Your task to perform on an android device: open app "TextNow: Call + Text Unlimited" (install if not already installed) and go to login screen Image 0: 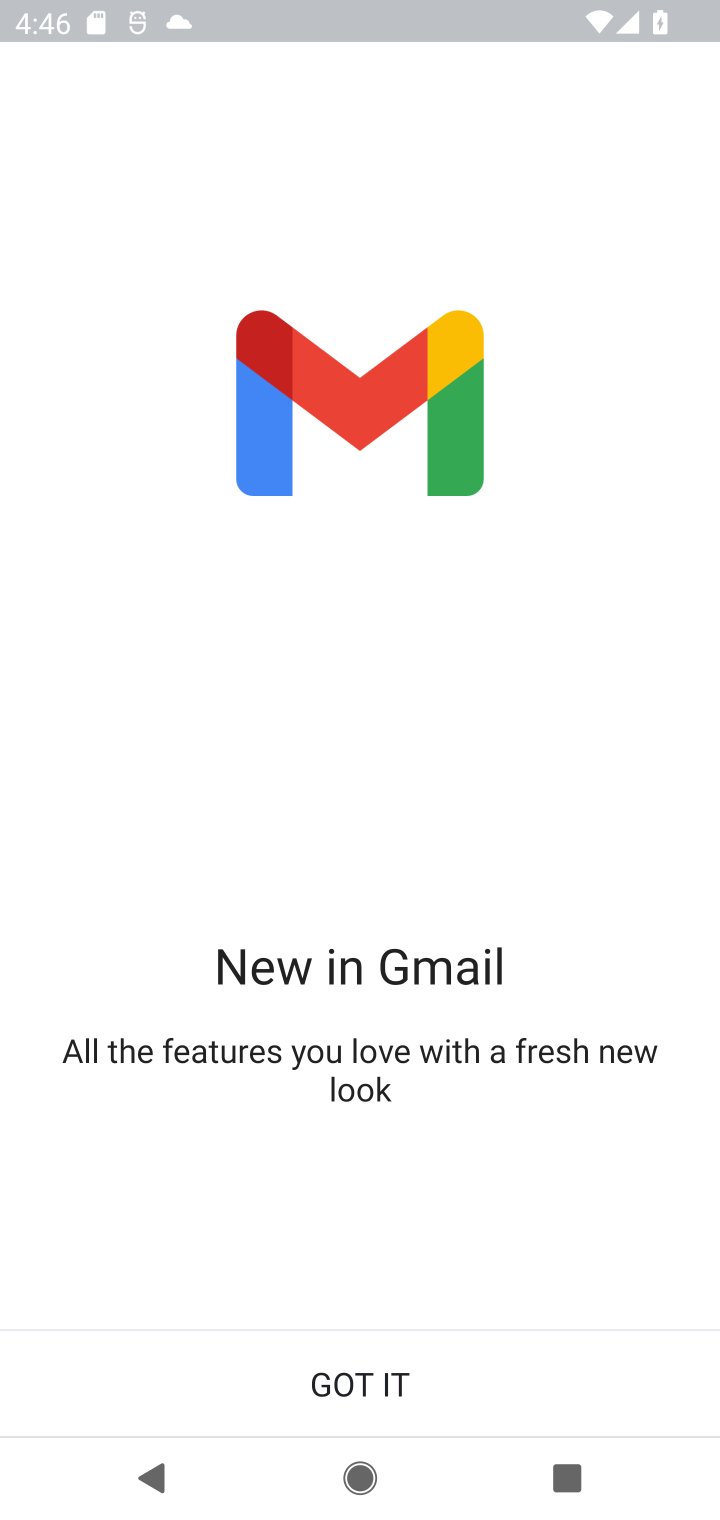
Step 0: press home button
Your task to perform on an android device: open app "TextNow: Call + Text Unlimited" (install if not already installed) and go to login screen Image 1: 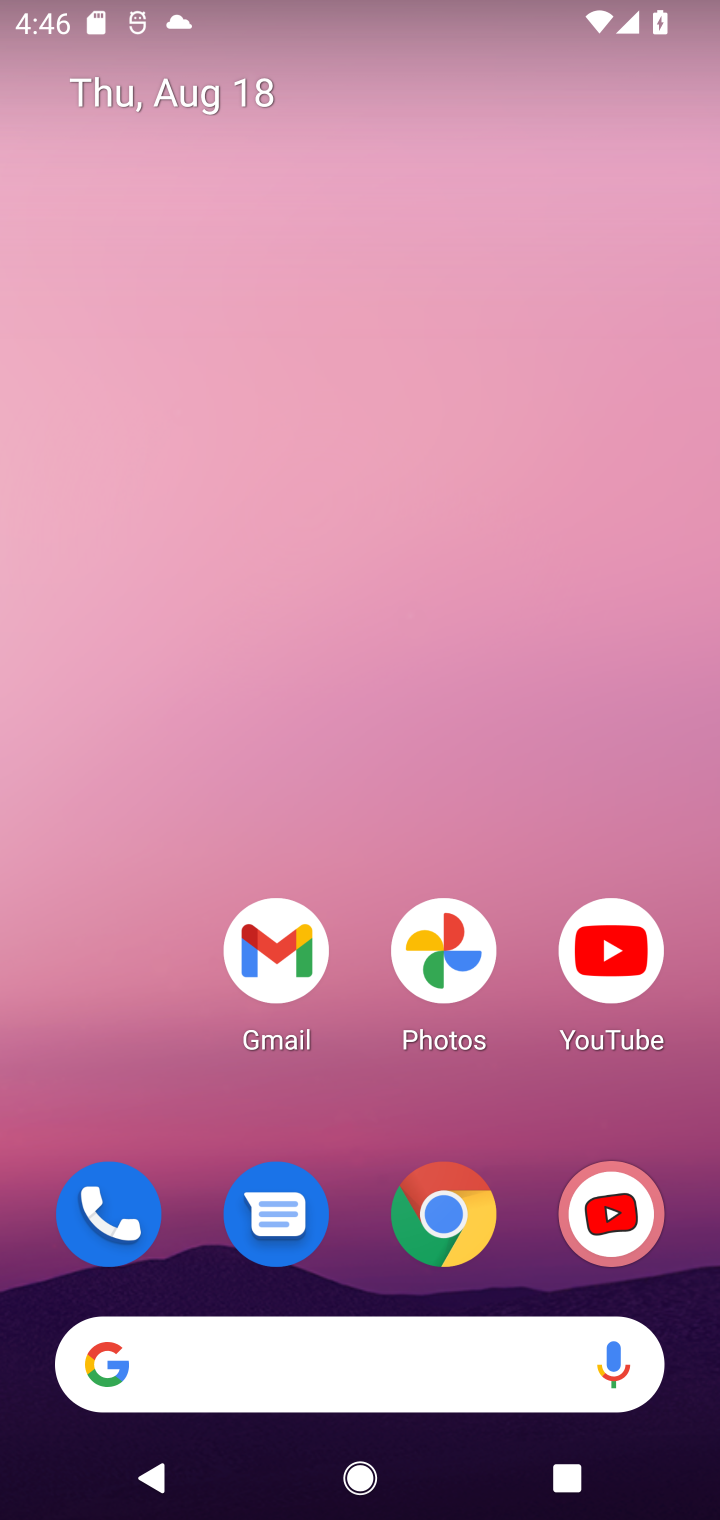
Step 1: drag from (367, 564) to (509, 58)
Your task to perform on an android device: open app "TextNow: Call + Text Unlimited" (install if not already installed) and go to login screen Image 2: 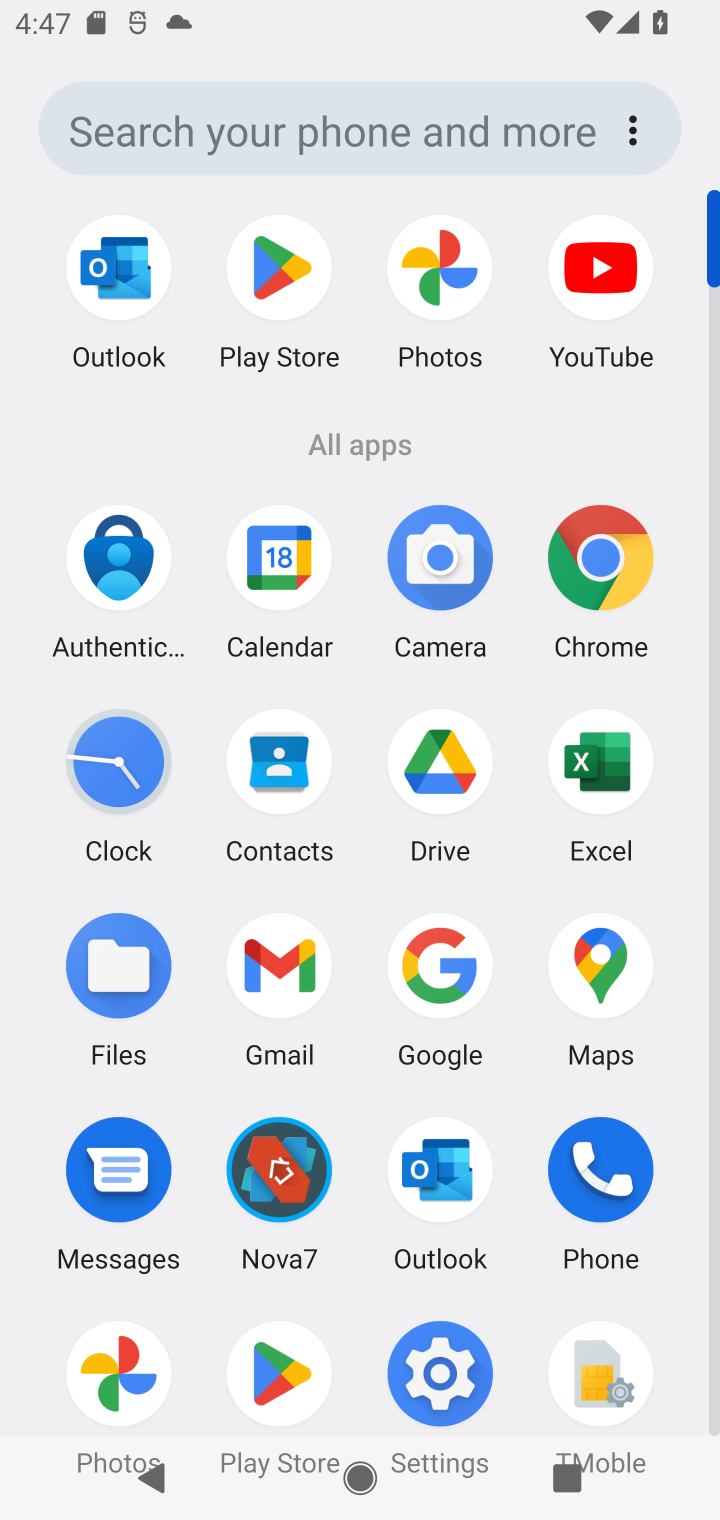
Step 2: click (263, 272)
Your task to perform on an android device: open app "TextNow: Call + Text Unlimited" (install if not already installed) and go to login screen Image 3: 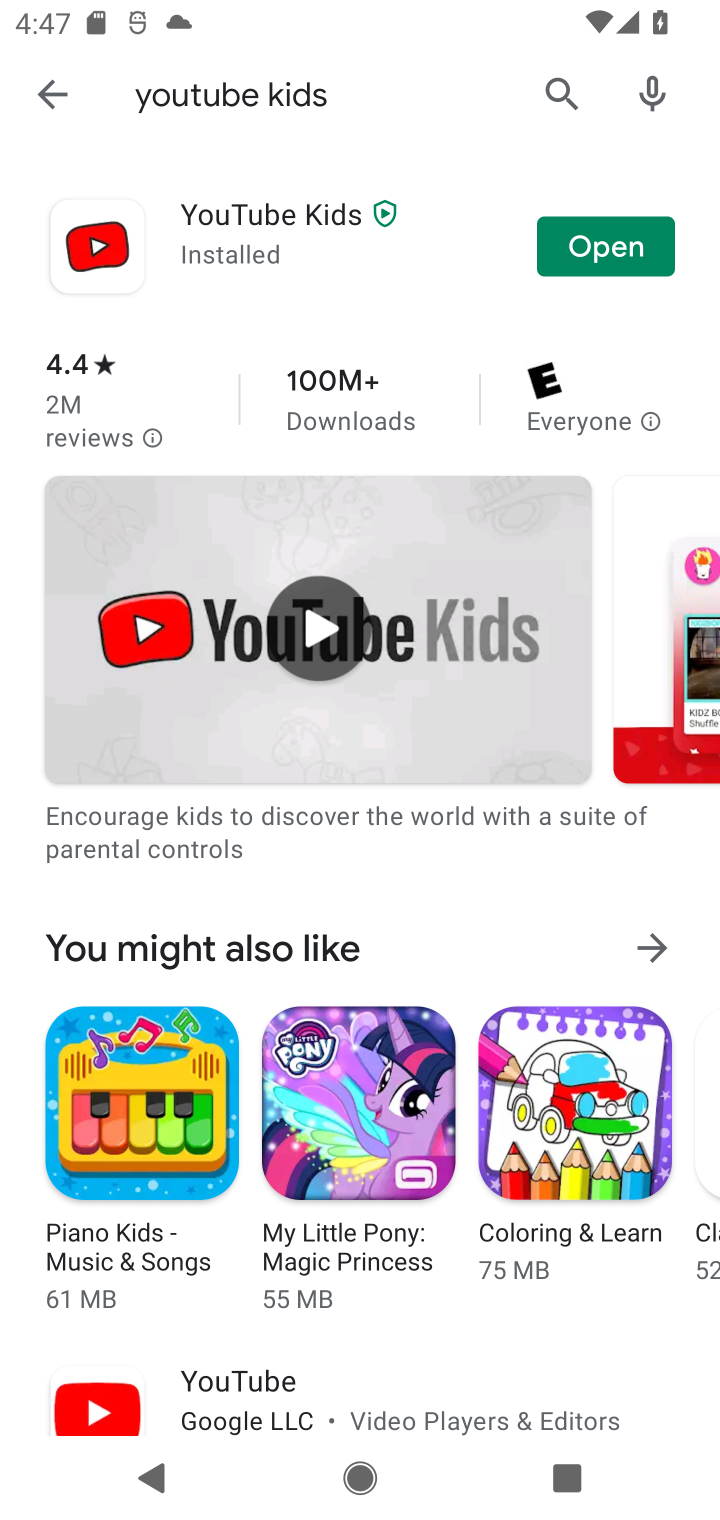
Step 3: click (302, 68)
Your task to perform on an android device: open app "TextNow: Call + Text Unlimited" (install if not already installed) and go to login screen Image 4: 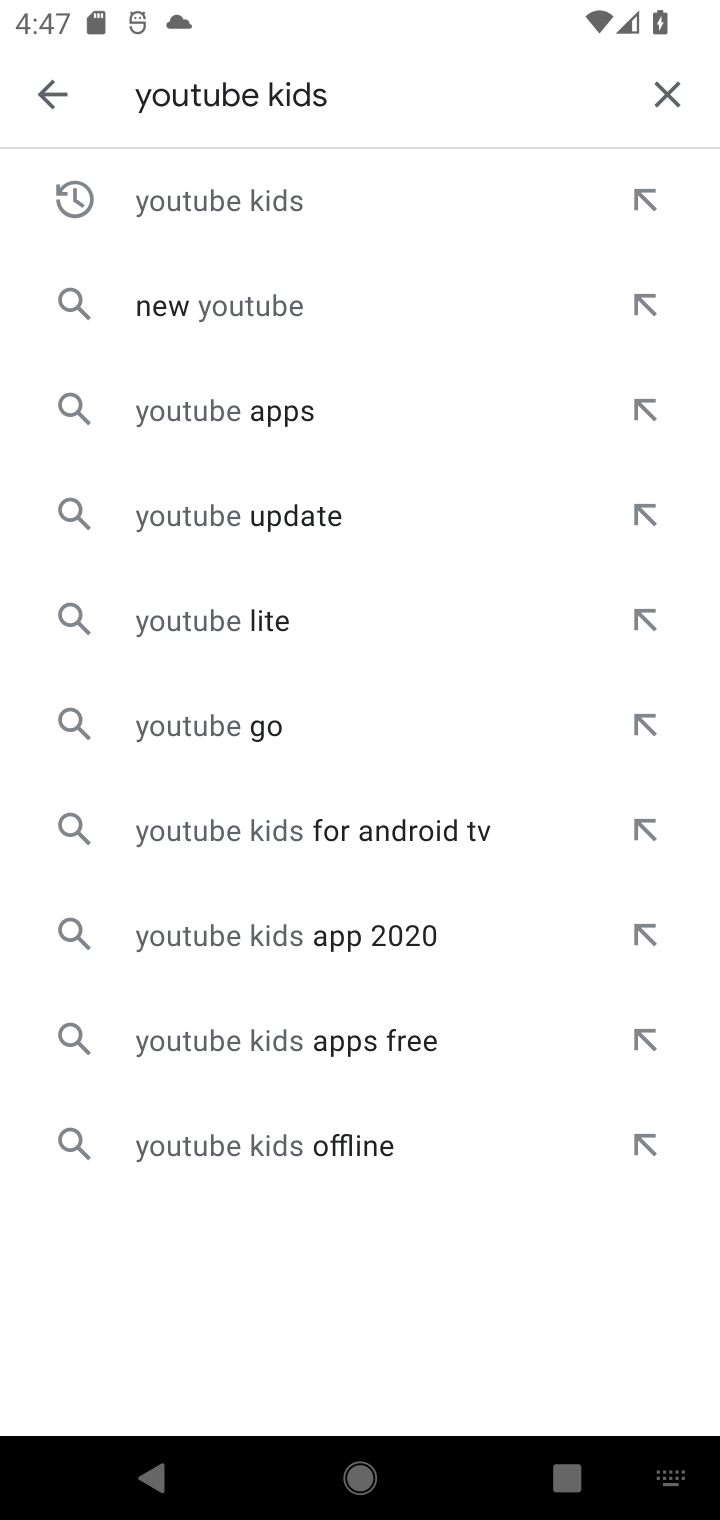
Step 4: click (668, 87)
Your task to perform on an android device: open app "TextNow: Call + Text Unlimited" (install if not already installed) and go to login screen Image 5: 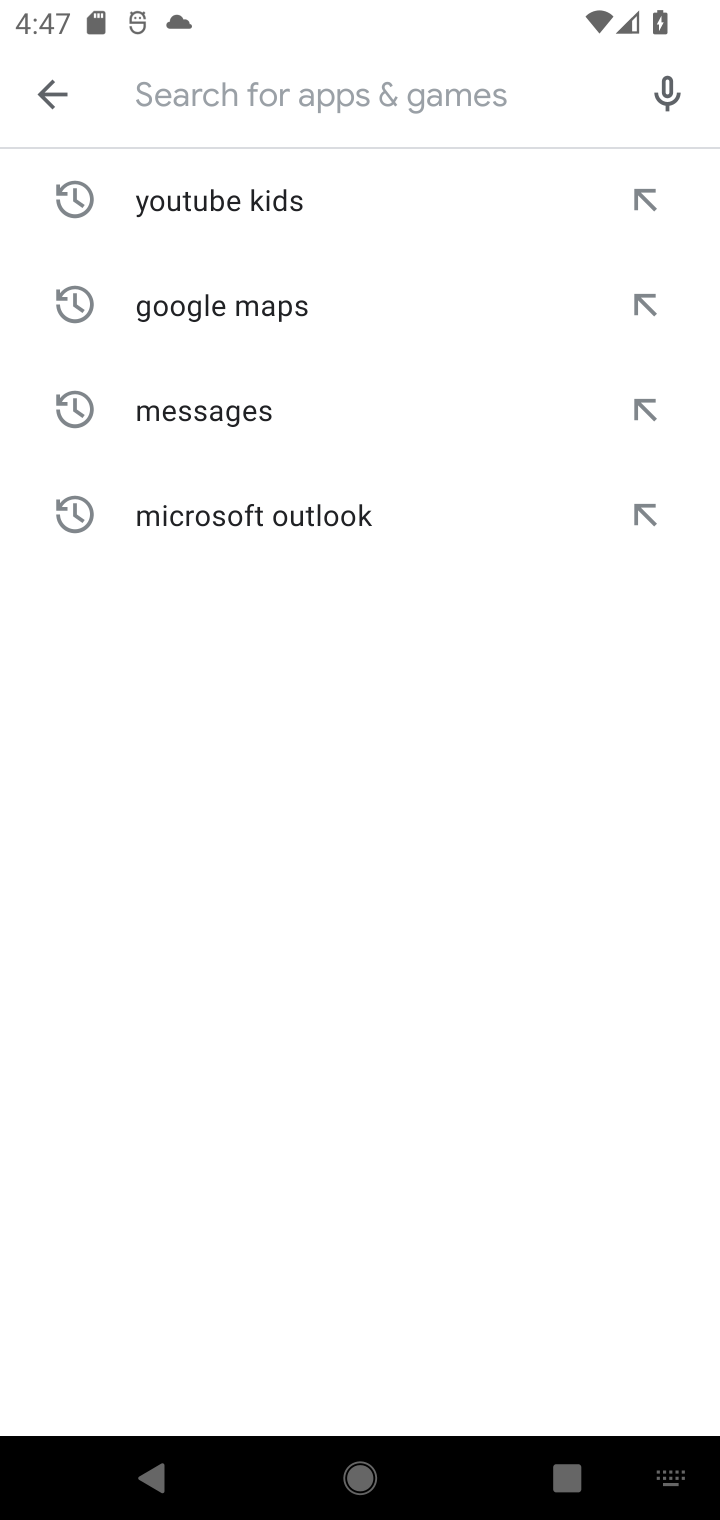
Step 5: type "TextNow"
Your task to perform on an android device: open app "TextNow: Call + Text Unlimited" (install if not already installed) and go to login screen Image 6: 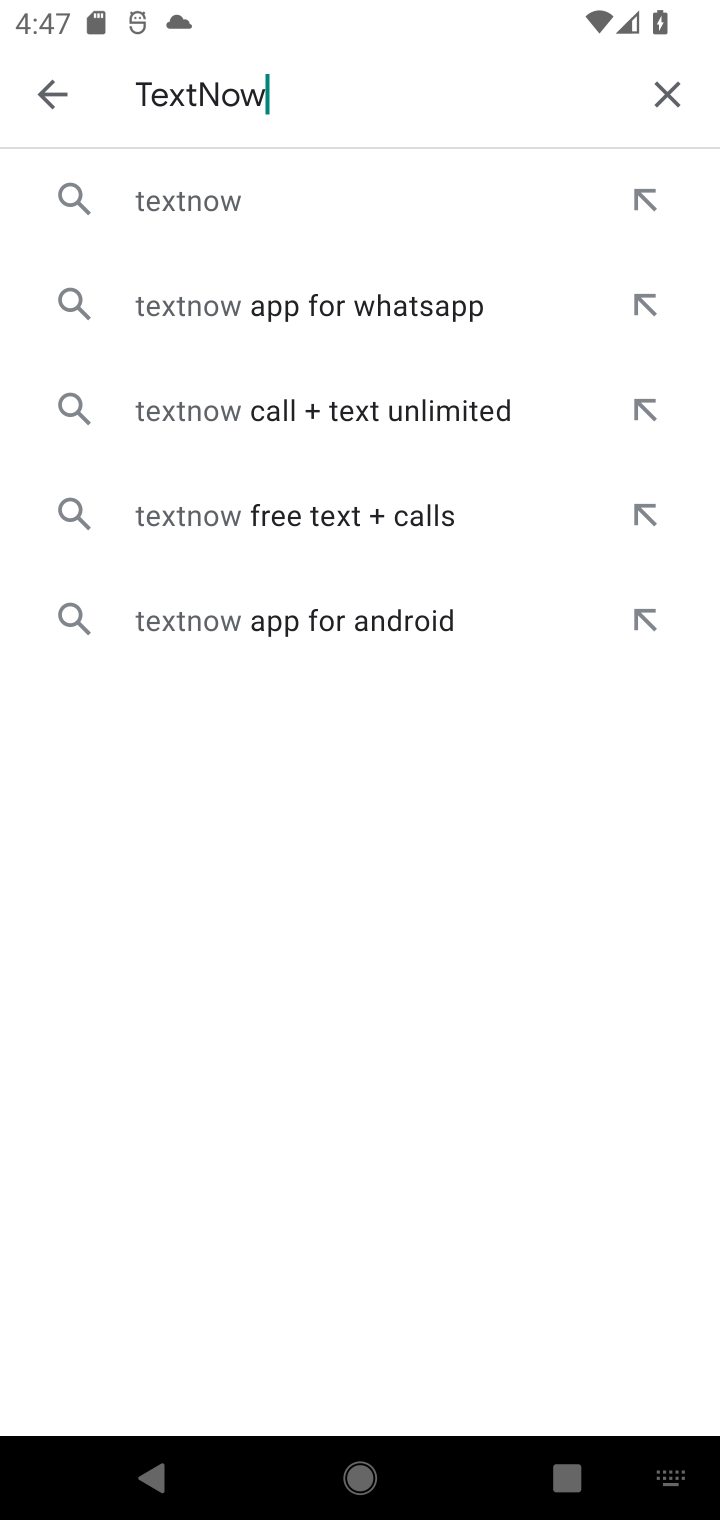
Step 6: click (220, 198)
Your task to perform on an android device: open app "TextNow: Call + Text Unlimited" (install if not already installed) and go to login screen Image 7: 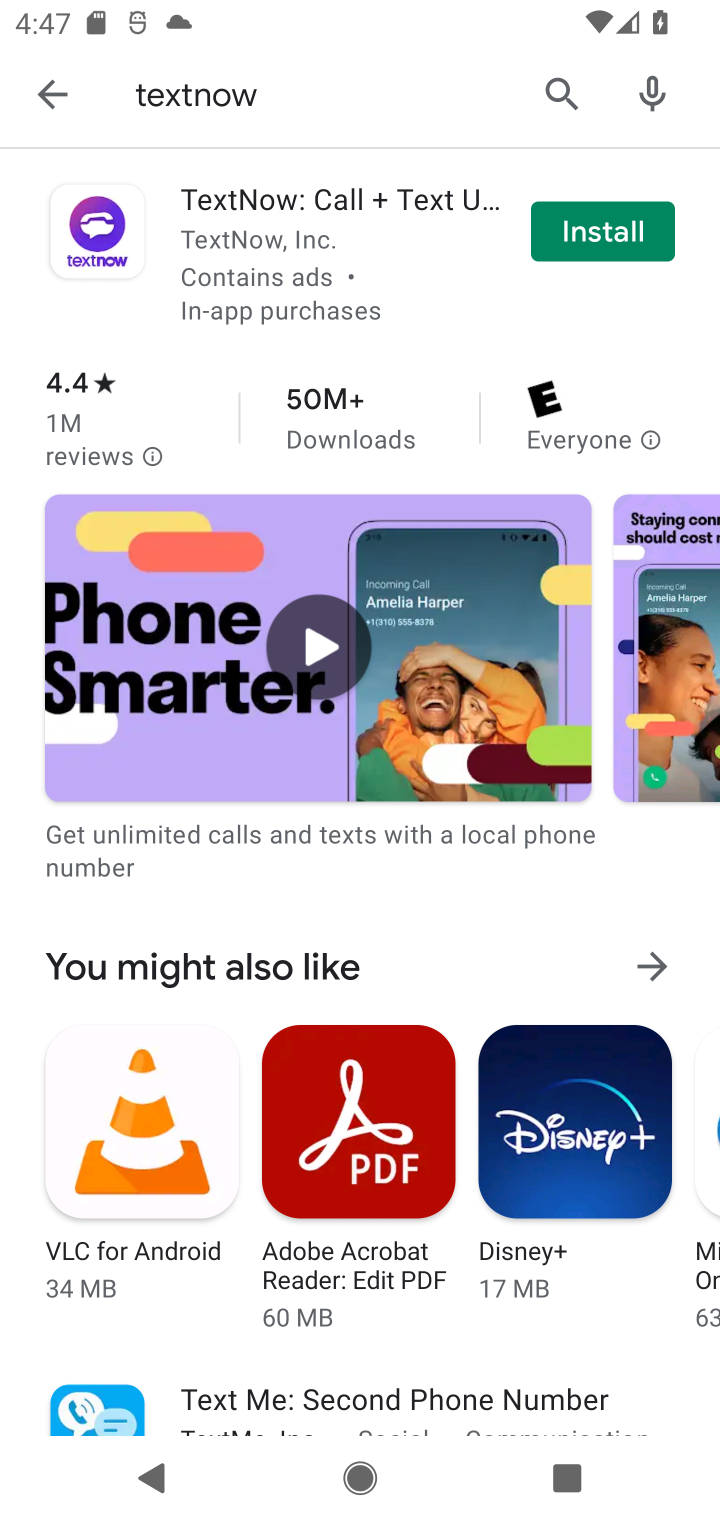
Step 7: click (594, 238)
Your task to perform on an android device: open app "TextNow: Call + Text Unlimited" (install if not already installed) and go to login screen Image 8: 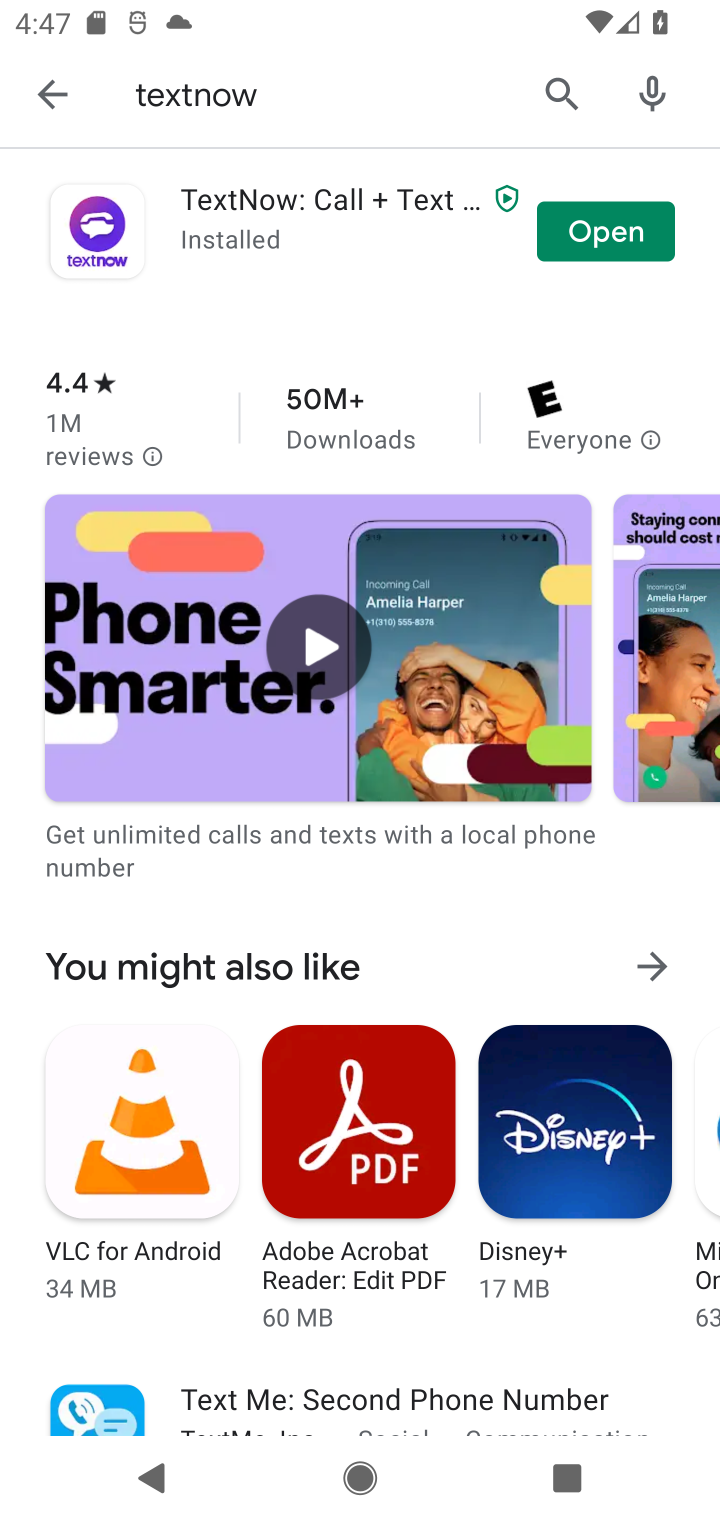
Step 8: click (585, 243)
Your task to perform on an android device: open app "TextNow: Call + Text Unlimited" (install if not already installed) and go to login screen Image 9: 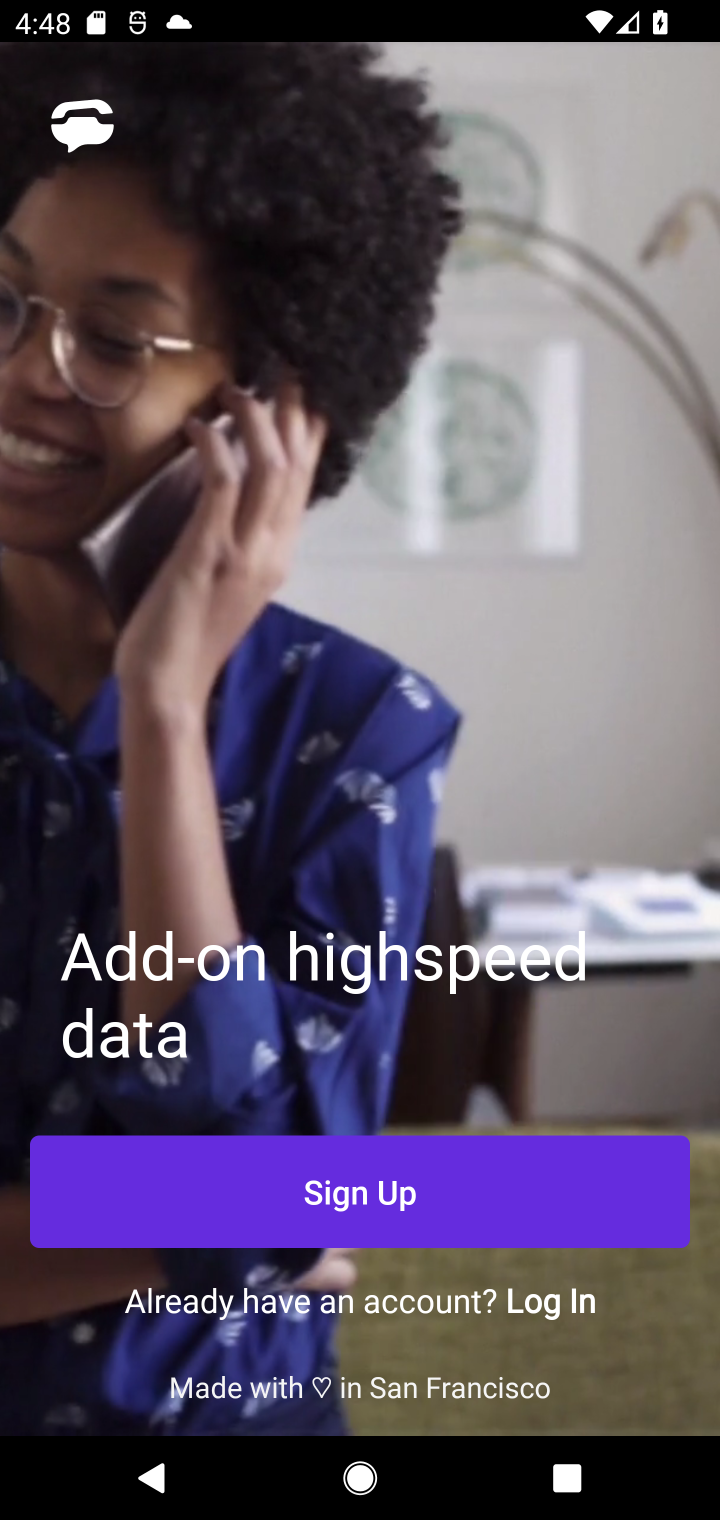
Step 9: click (577, 1305)
Your task to perform on an android device: open app "TextNow: Call + Text Unlimited" (install if not already installed) and go to login screen Image 10: 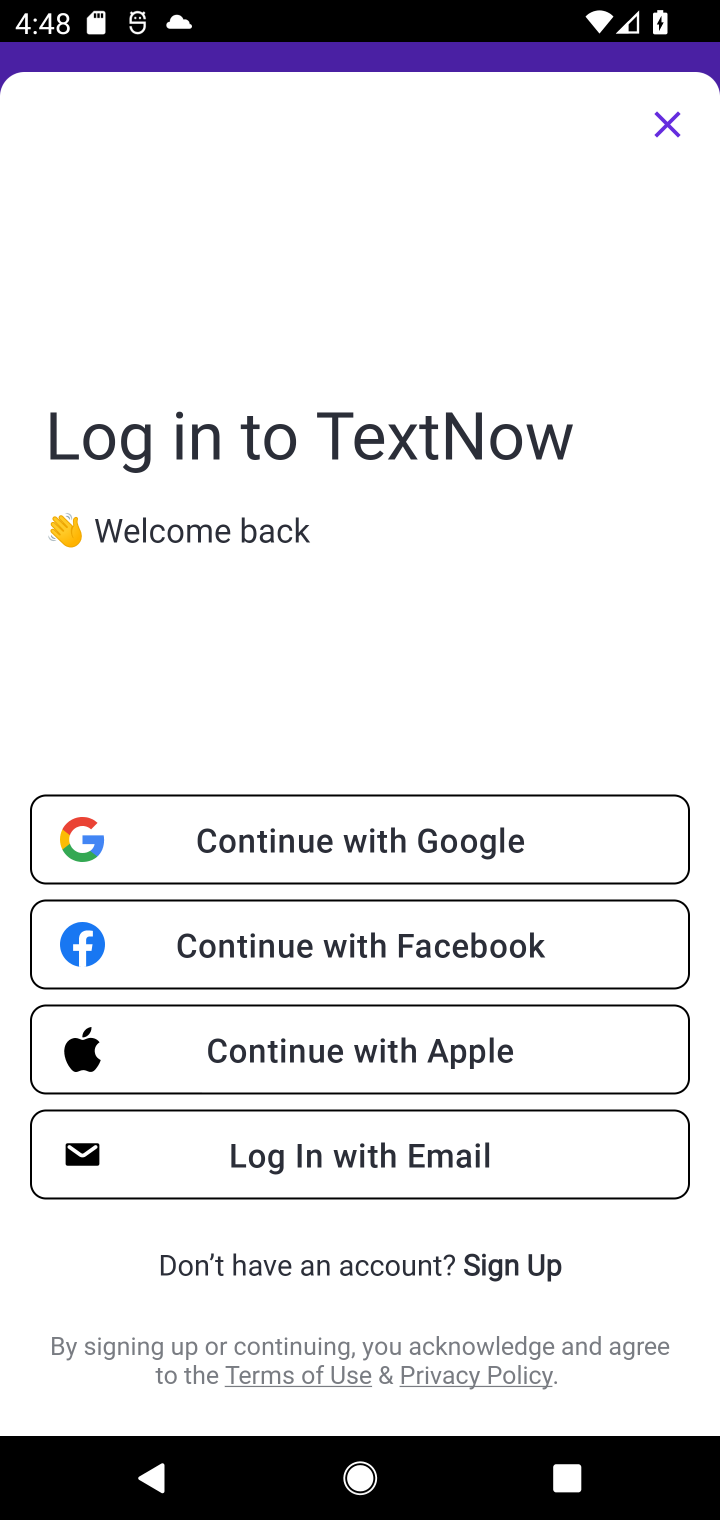
Step 10: task complete